Your task to perform on an android device: toggle airplane mode Image 0: 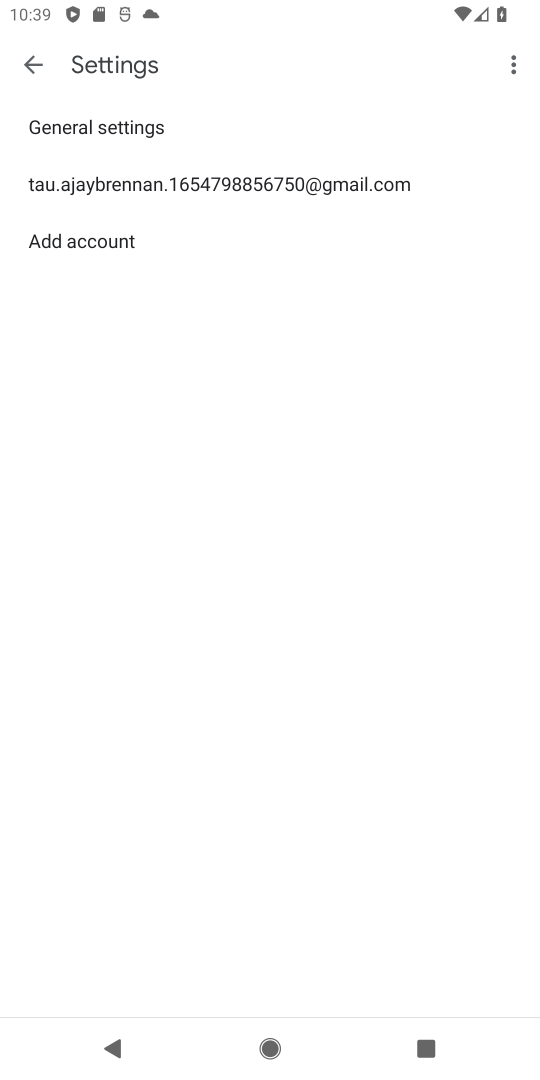
Step 0: press home button
Your task to perform on an android device: toggle airplane mode Image 1: 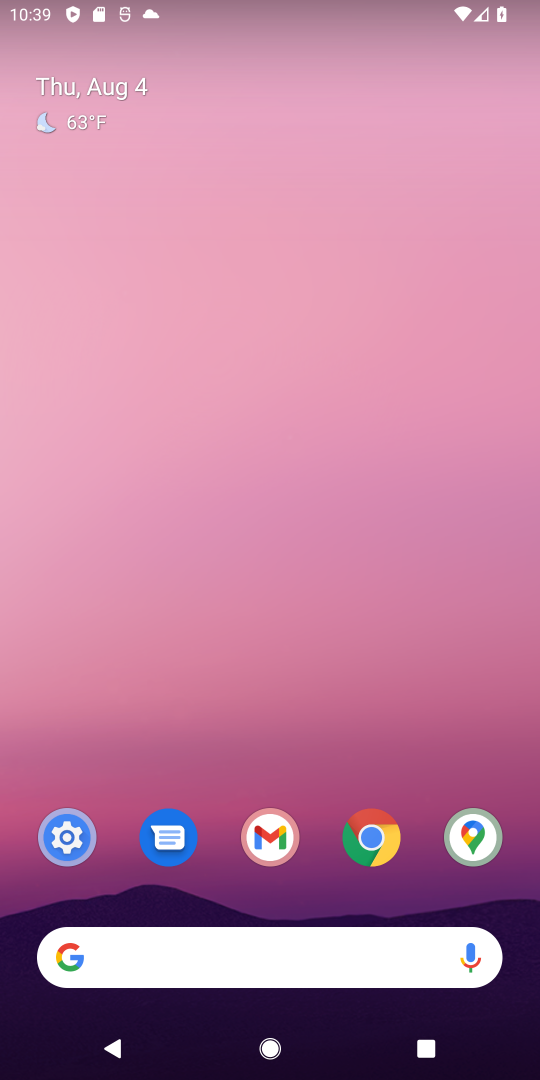
Step 1: drag from (287, 859) to (294, 39)
Your task to perform on an android device: toggle airplane mode Image 2: 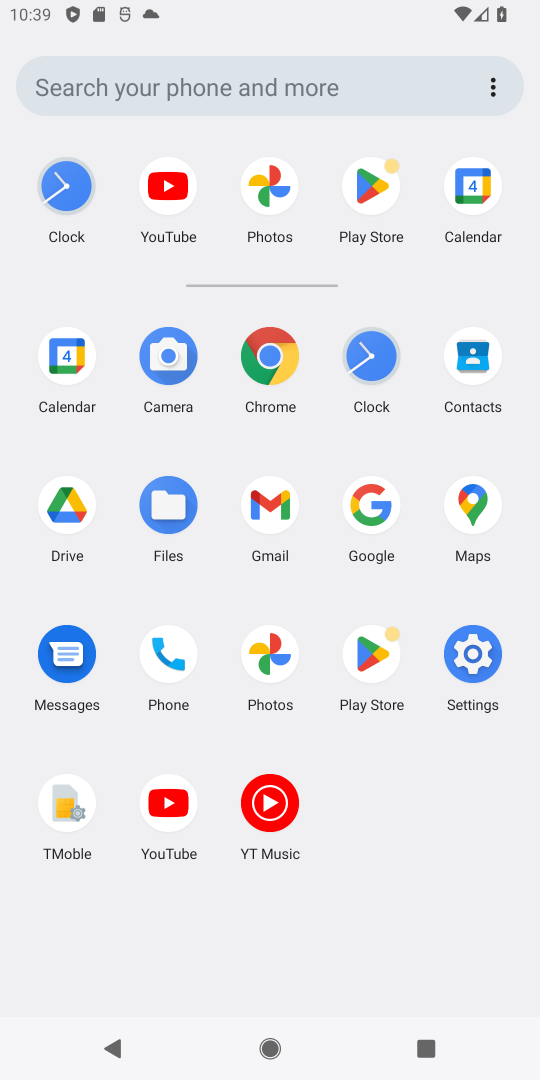
Step 2: click (473, 648)
Your task to perform on an android device: toggle airplane mode Image 3: 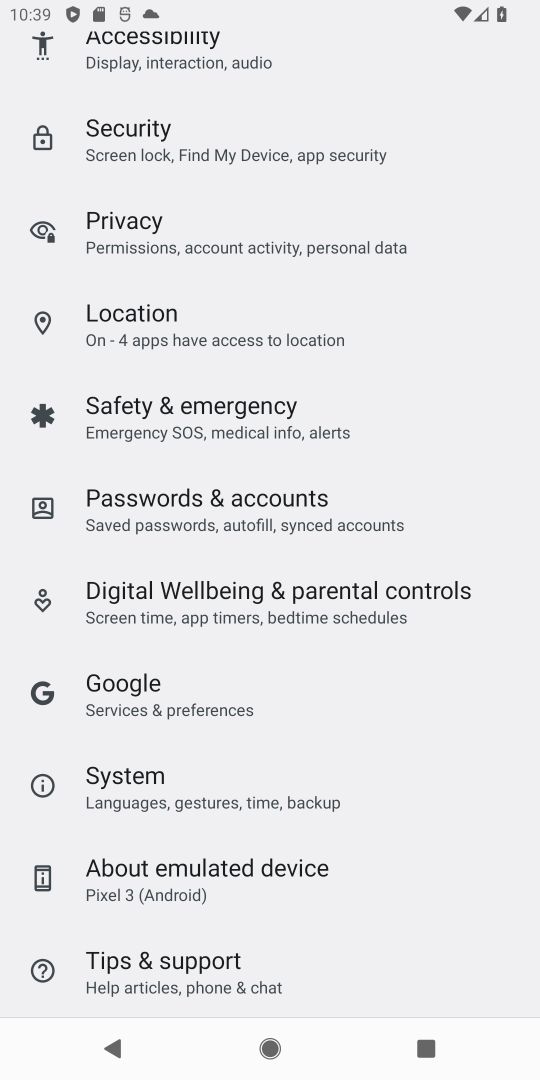
Step 3: drag from (168, 97) to (114, 930)
Your task to perform on an android device: toggle airplane mode Image 4: 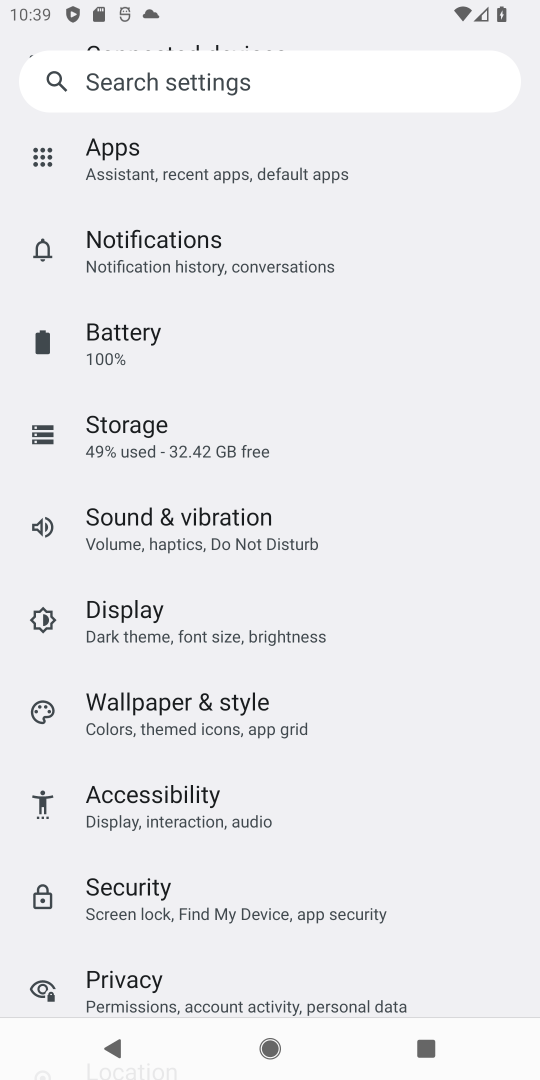
Step 4: drag from (228, 212) to (198, 832)
Your task to perform on an android device: toggle airplane mode Image 5: 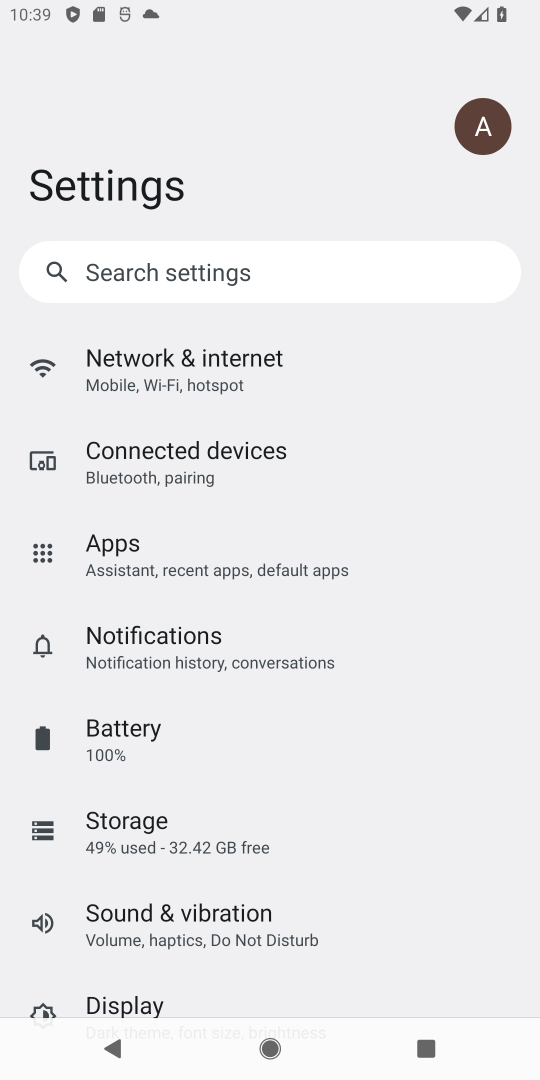
Step 5: click (192, 380)
Your task to perform on an android device: toggle airplane mode Image 6: 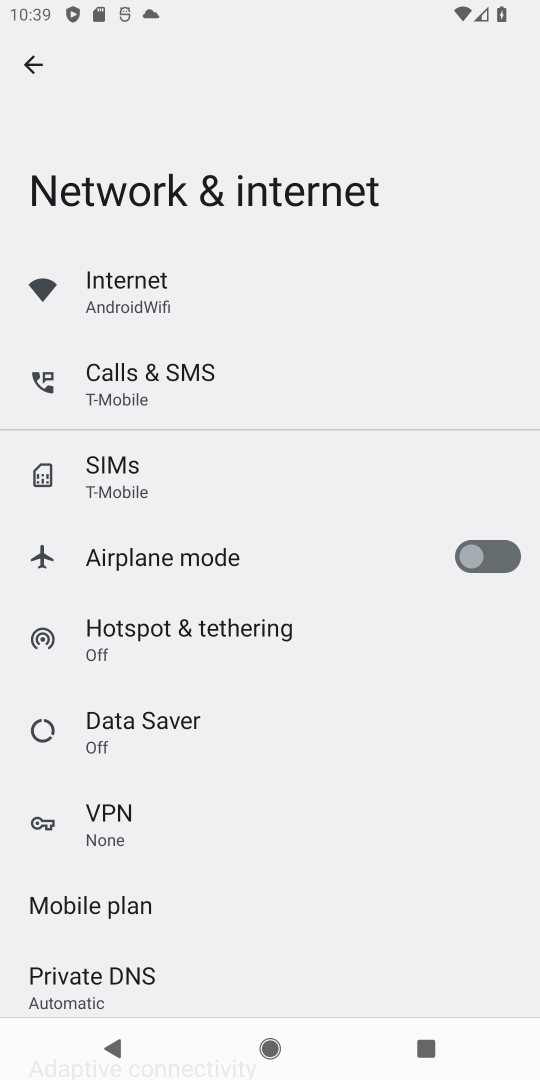
Step 6: click (488, 550)
Your task to perform on an android device: toggle airplane mode Image 7: 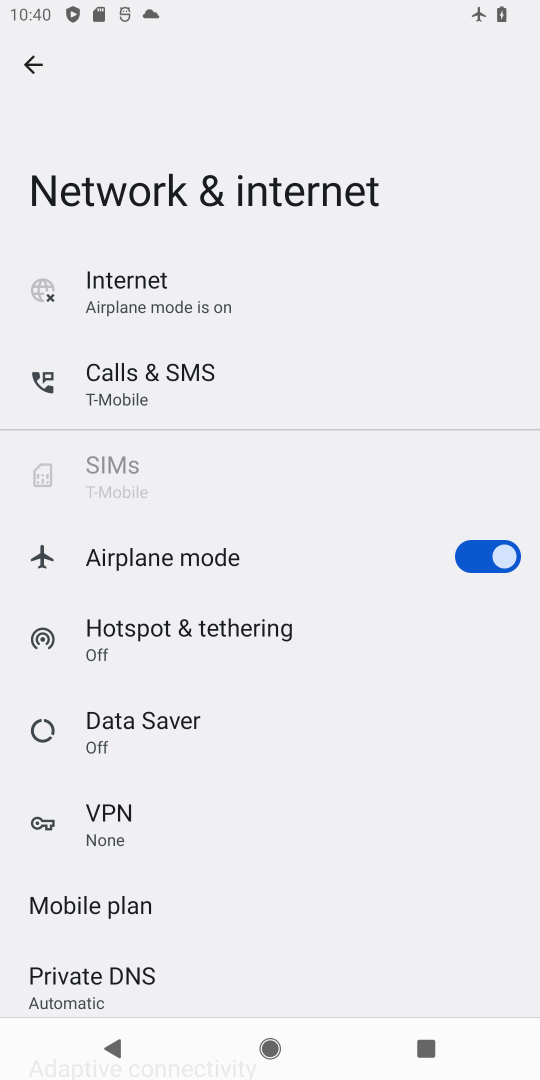
Step 7: task complete